Your task to perform on an android device: turn on translation in the chrome app Image 0: 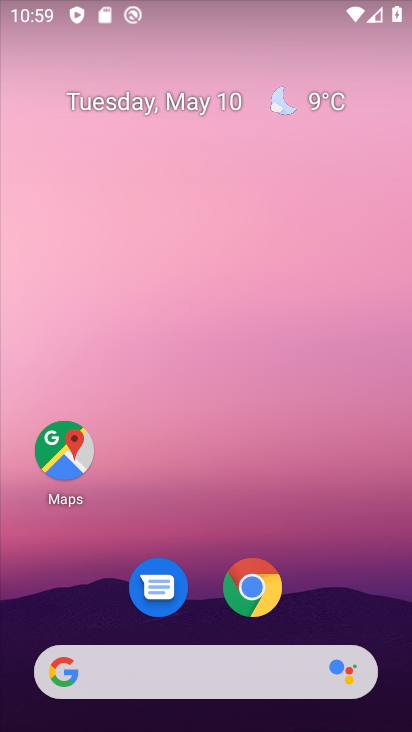
Step 0: click (253, 579)
Your task to perform on an android device: turn on translation in the chrome app Image 1: 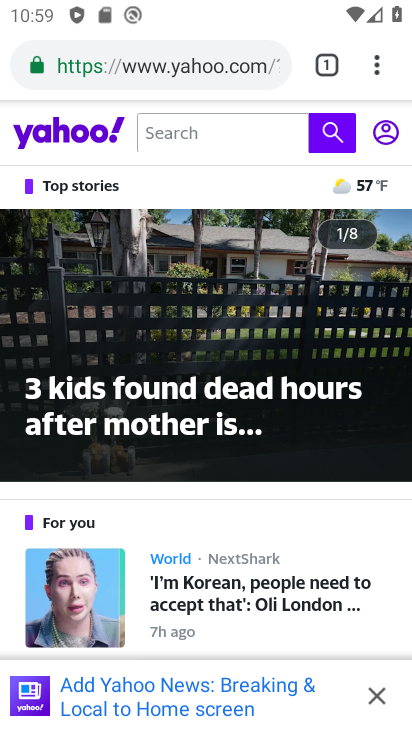
Step 1: drag from (376, 67) to (173, 644)
Your task to perform on an android device: turn on translation in the chrome app Image 2: 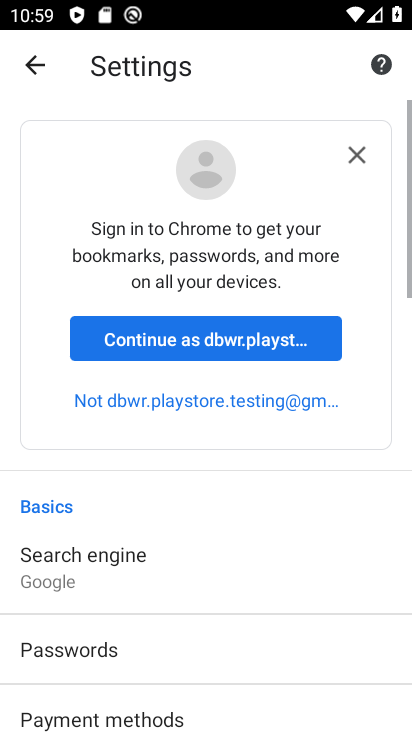
Step 2: drag from (173, 642) to (198, 196)
Your task to perform on an android device: turn on translation in the chrome app Image 3: 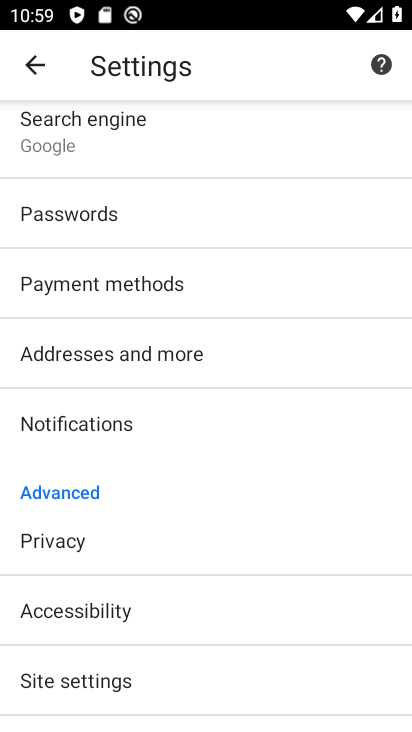
Step 3: drag from (172, 608) to (196, 316)
Your task to perform on an android device: turn on translation in the chrome app Image 4: 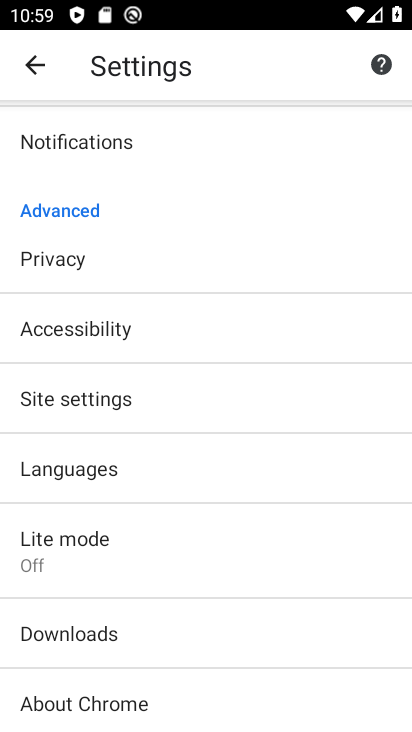
Step 4: click (75, 476)
Your task to perform on an android device: turn on translation in the chrome app Image 5: 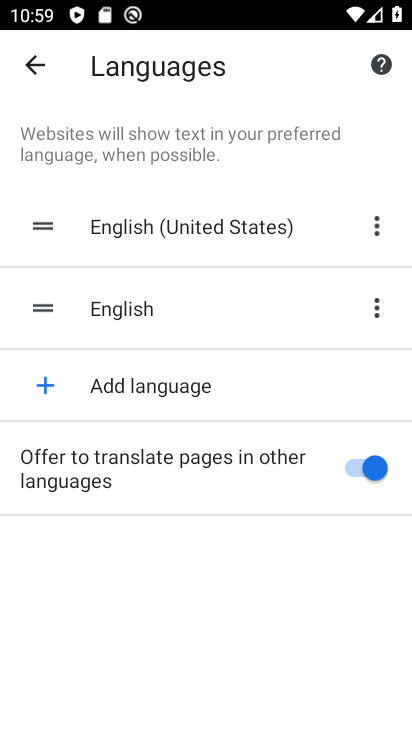
Step 5: task complete